Your task to perform on an android device: change the clock display to show seconds Image 0: 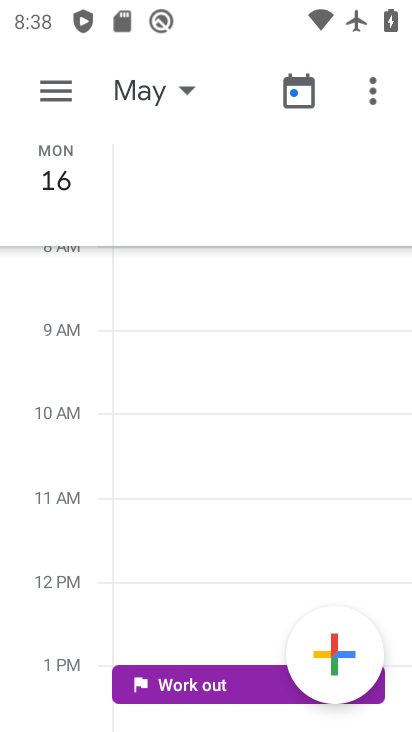
Step 0: press home button
Your task to perform on an android device: change the clock display to show seconds Image 1: 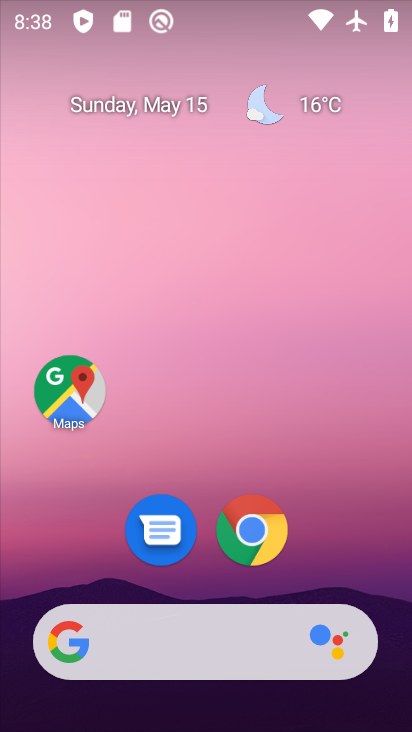
Step 1: drag from (210, 722) to (208, 278)
Your task to perform on an android device: change the clock display to show seconds Image 2: 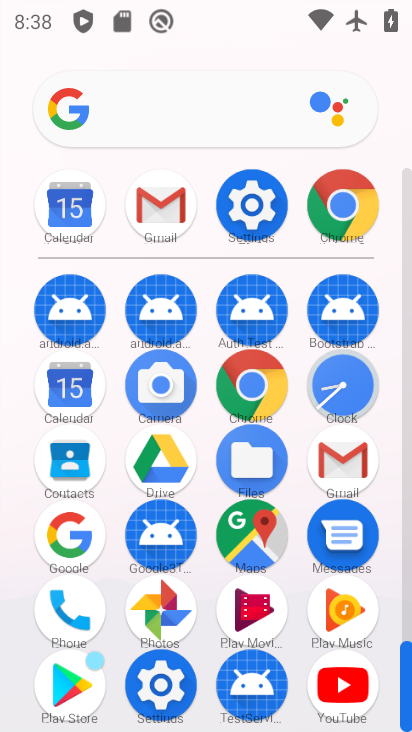
Step 2: click (339, 392)
Your task to perform on an android device: change the clock display to show seconds Image 3: 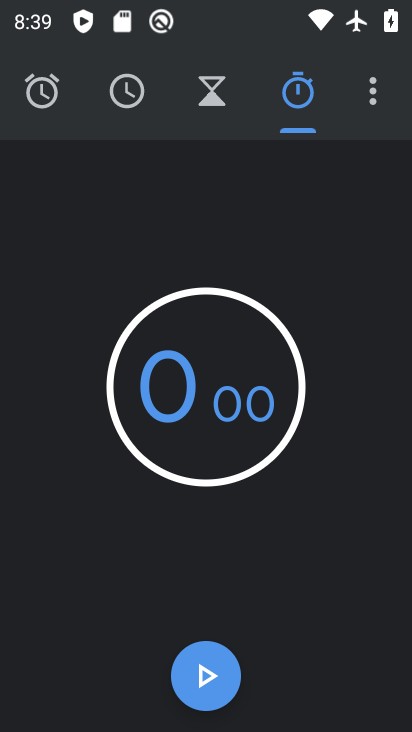
Step 3: click (374, 86)
Your task to perform on an android device: change the clock display to show seconds Image 4: 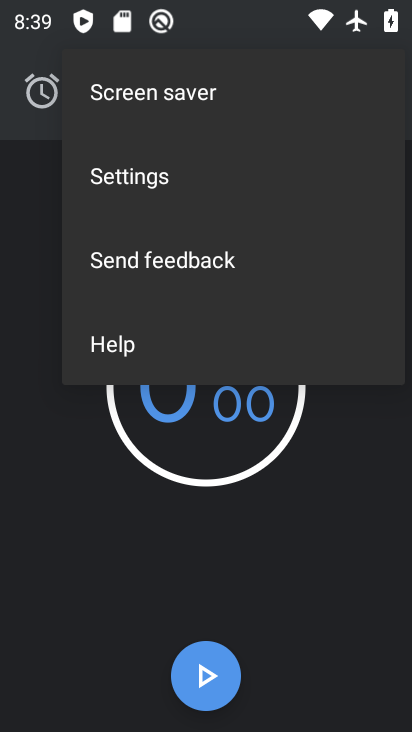
Step 4: click (104, 169)
Your task to perform on an android device: change the clock display to show seconds Image 5: 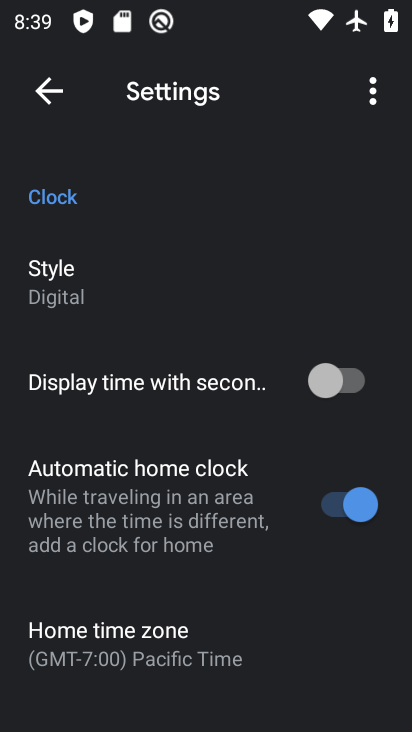
Step 5: click (344, 390)
Your task to perform on an android device: change the clock display to show seconds Image 6: 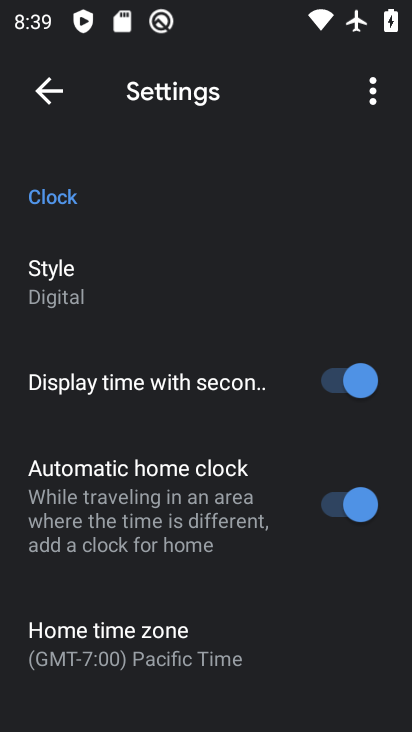
Step 6: task complete